Your task to perform on an android device: Open Google Chrome Image 0: 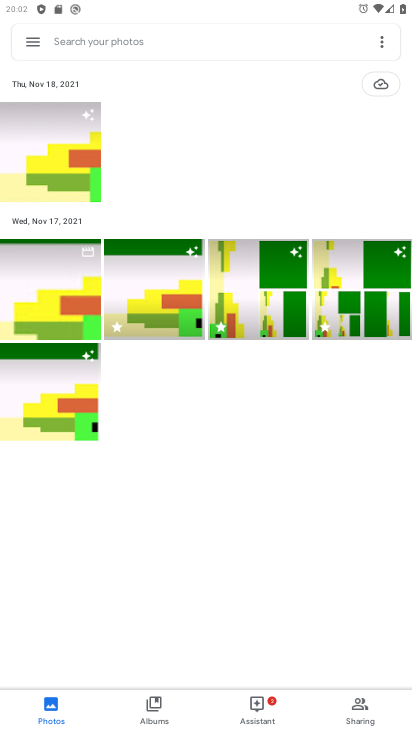
Step 0: drag from (266, 598) to (257, 361)
Your task to perform on an android device: Open Google Chrome Image 1: 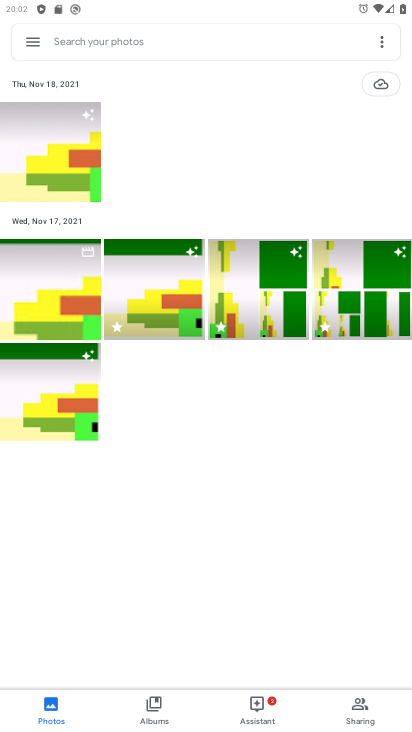
Step 1: press home button
Your task to perform on an android device: Open Google Chrome Image 2: 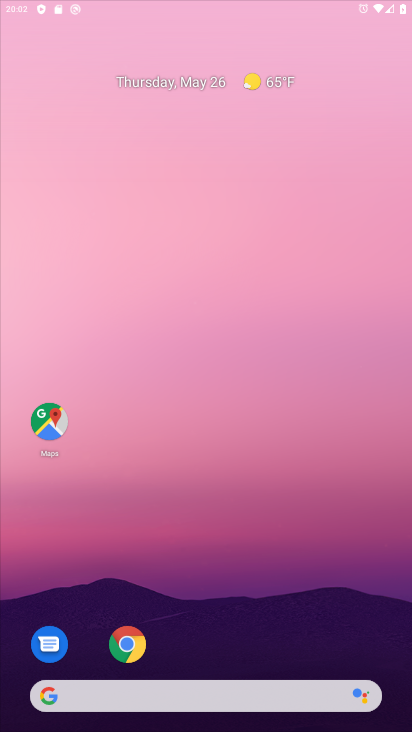
Step 2: drag from (261, 604) to (385, 109)
Your task to perform on an android device: Open Google Chrome Image 3: 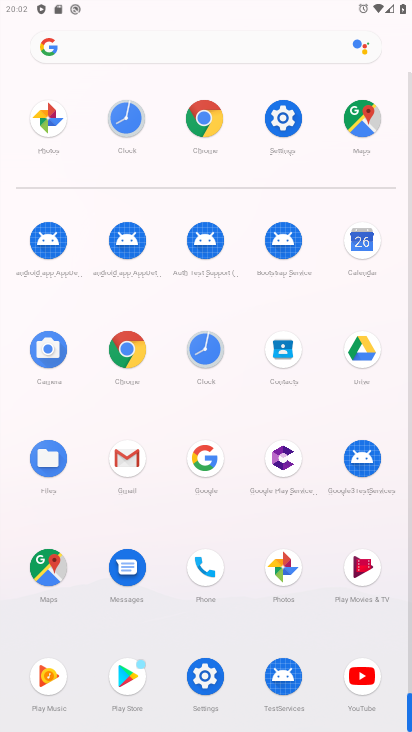
Step 3: click (196, 120)
Your task to perform on an android device: Open Google Chrome Image 4: 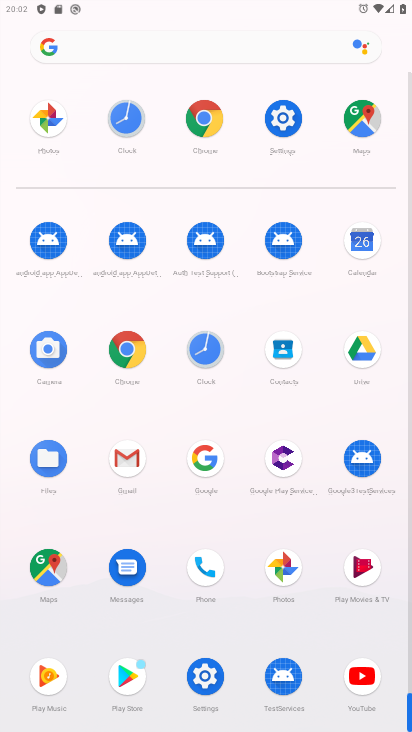
Step 4: click (196, 120)
Your task to perform on an android device: Open Google Chrome Image 5: 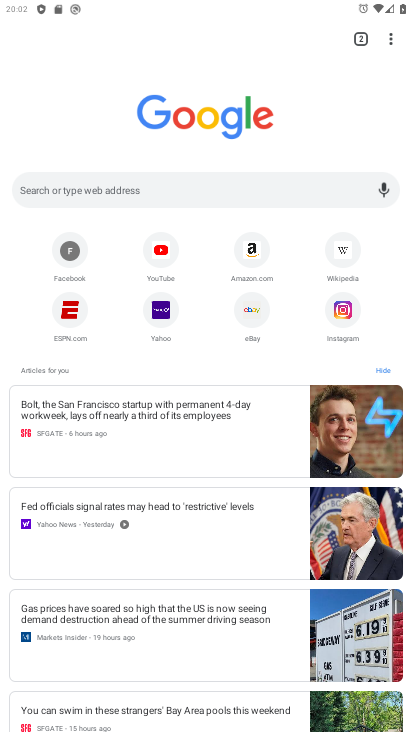
Step 5: click (395, 35)
Your task to perform on an android device: Open Google Chrome Image 6: 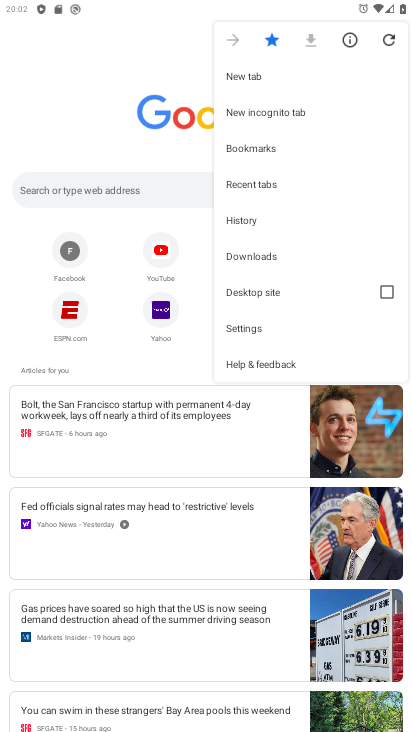
Step 6: drag from (309, 300) to (296, 17)
Your task to perform on an android device: Open Google Chrome Image 7: 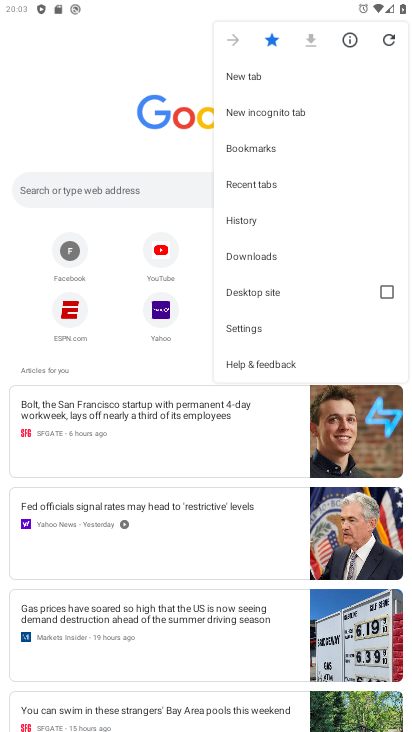
Step 7: click (32, 116)
Your task to perform on an android device: Open Google Chrome Image 8: 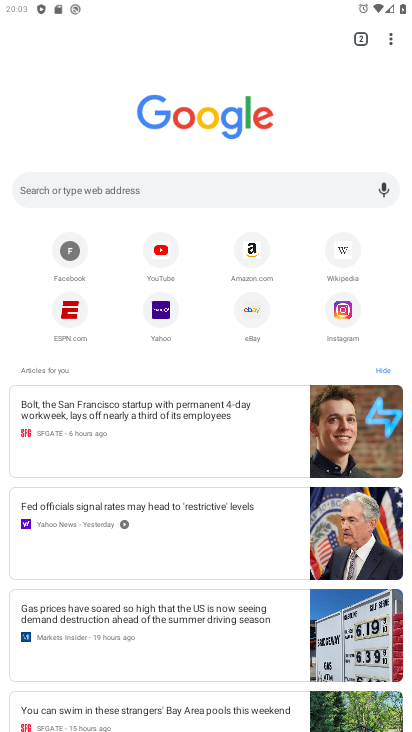
Step 8: task complete